Your task to perform on an android device: turn off wifi Image 0: 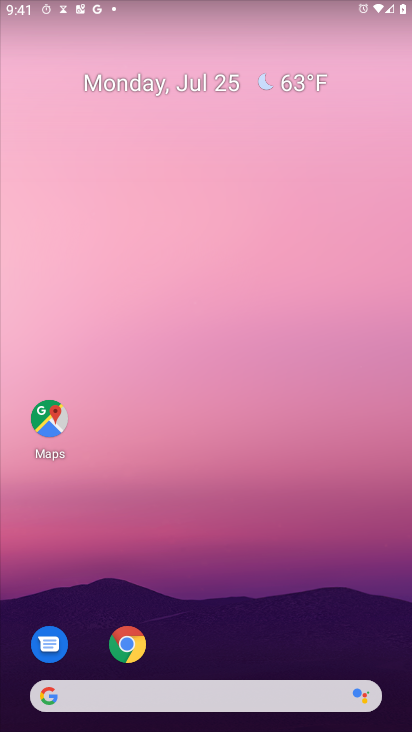
Step 0: drag from (182, 657) to (137, 180)
Your task to perform on an android device: turn off wifi Image 1: 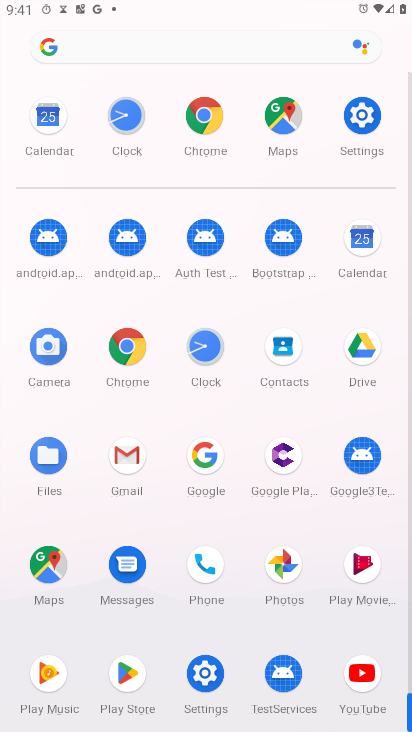
Step 1: click (365, 116)
Your task to perform on an android device: turn off wifi Image 2: 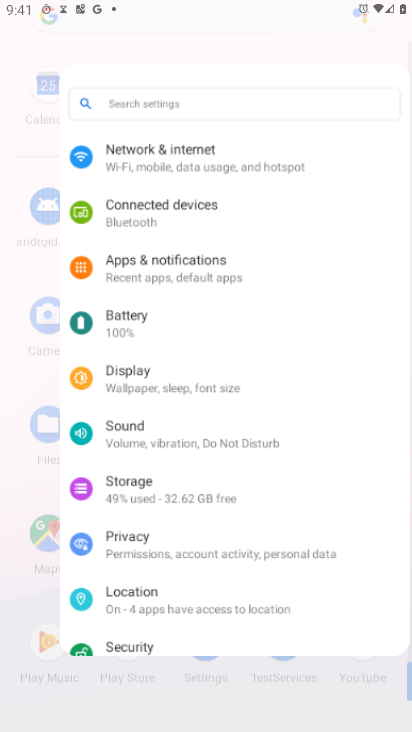
Step 2: click (371, 115)
Your task to perform on an android device: turn off wifi Image 3: 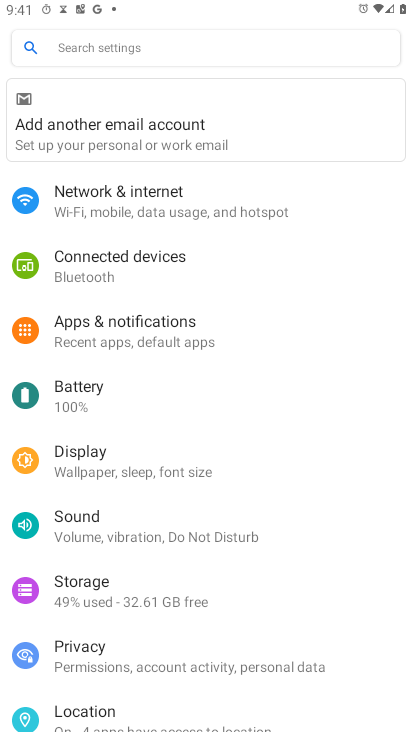
Step 3: click (134, 202)
Your task to perform on an android device: turn off wifi Image 4: 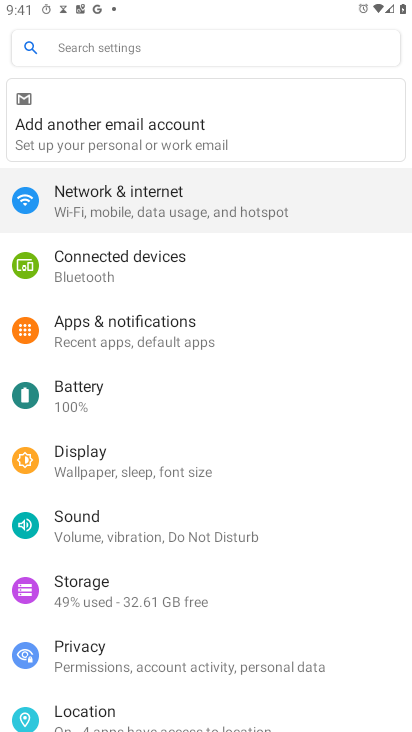
Step 4: click (134, 202)
Your task to perform on an android device: turn off wifi Image 5: 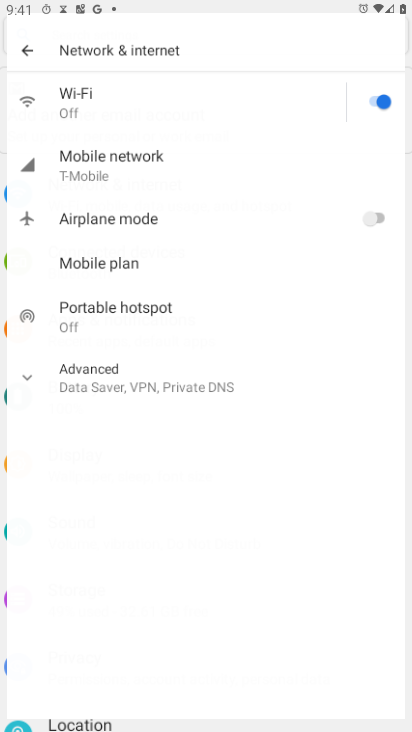
Step 5: click (135, 201)
Your task to perform on an android device: turn off wifi Image 6: 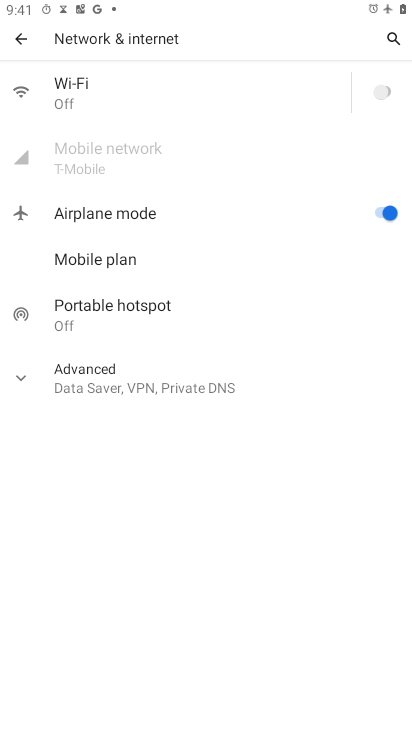
Step 6: click (391, 93)
Your task to perform on an android device: turn off wifi Image 7: 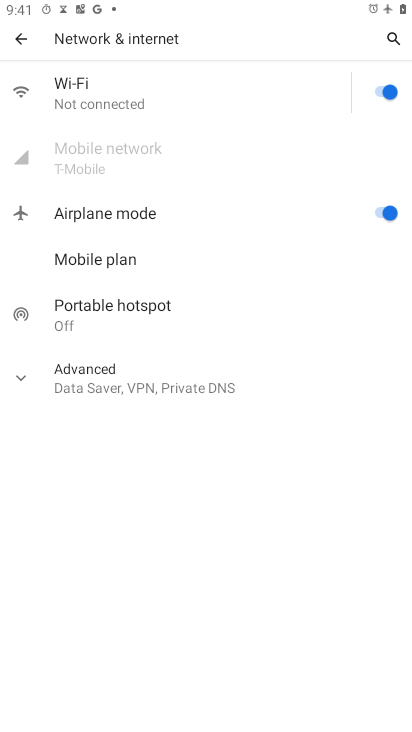
Step 7: click (395, 221)
Your task to perform on an android device: turn off wifi Image 8: 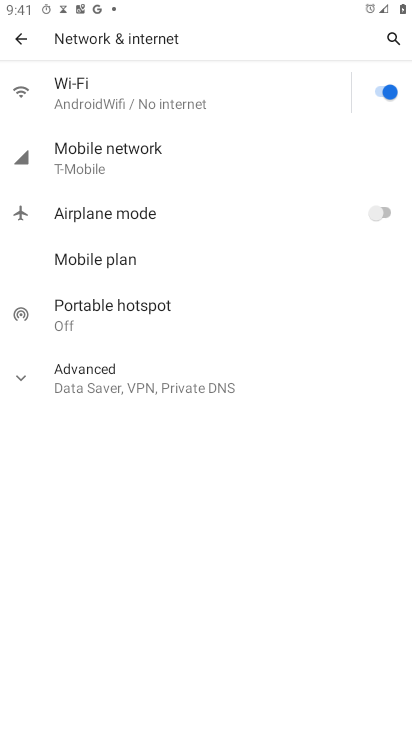
Step 8: click (390, 89)
Your task to perform on an android device: turn off wifi Image 9: 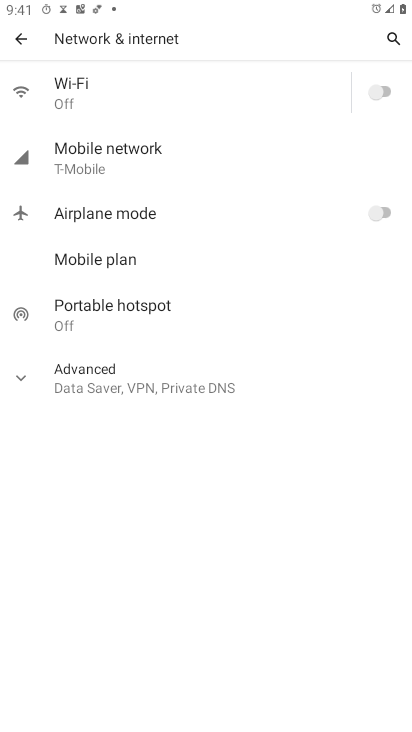
Step 9: task complete